Your task to perform on an android device: add a label to a message in the gmail app Image 0: 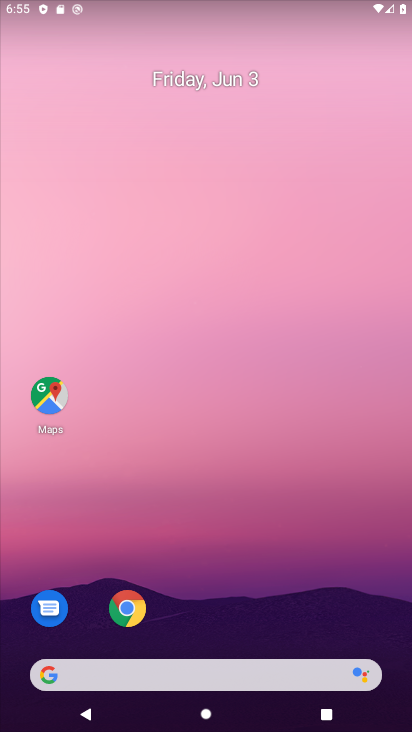
Step 0: drag from (213, 623) to (134, 22)
Your task to perform on an android device: add a label to a message in the gmail app Image 1: 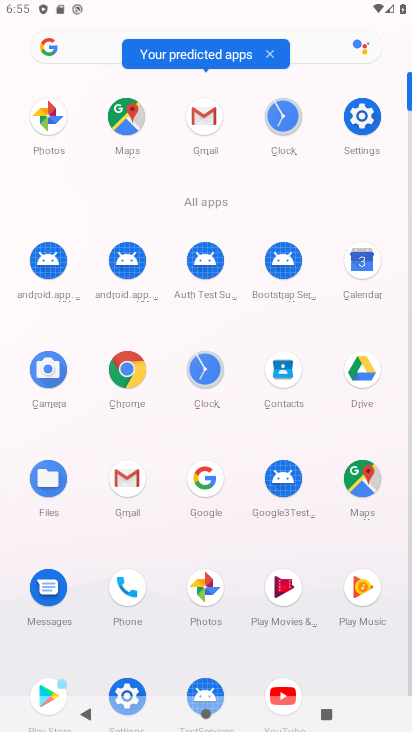
Step 1: click (197, 131)
Your task to perform on an android device: add a label to a message in the gmail app Image 2: 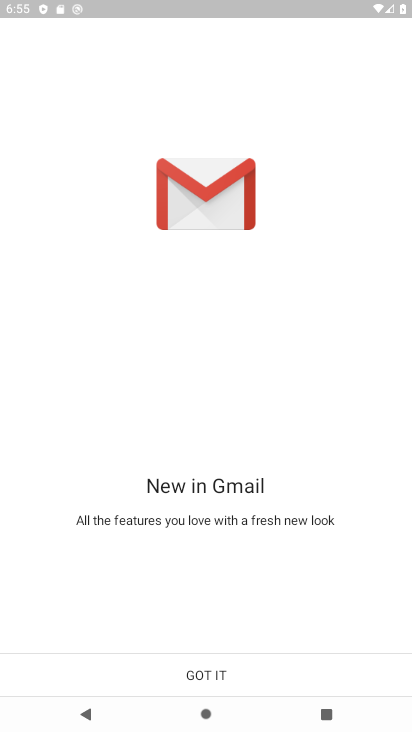
Step 2: click (224, 663)
Your task to perform on an android device: add a label to a message in the gmail app Image 3: 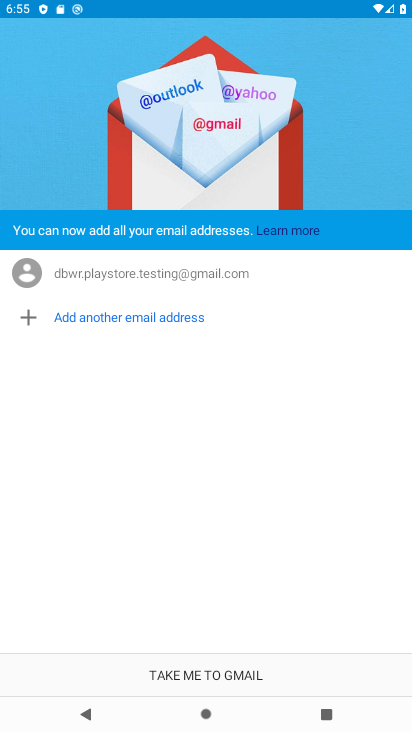
Step 3: click (224, 663)
Your task to perform on an android device: add a label to a message in the gmail app Image 4: 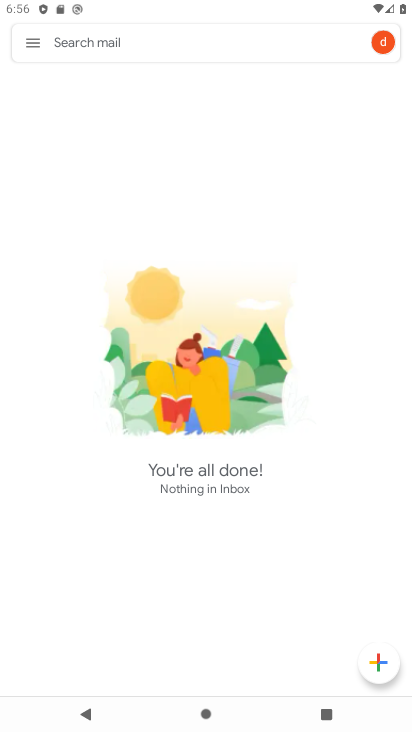
Step 4: task complete